Your task to perform on an android device: Go to CNN.com Image 0: 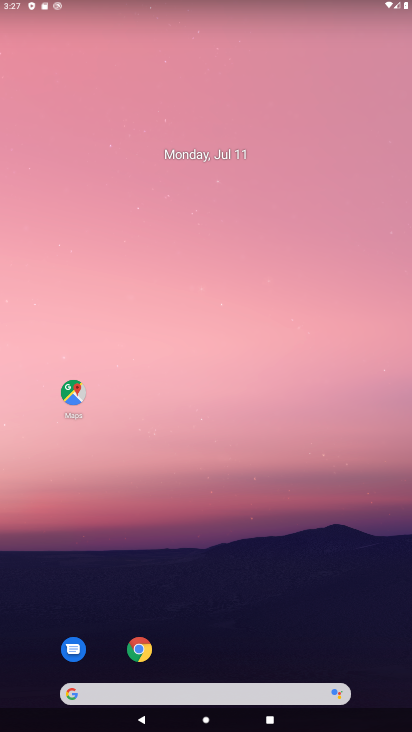
Step 0: drag from (202, 228) to (186, 342)
Your task to perform on an android device: Go to CNN.com Image 1: 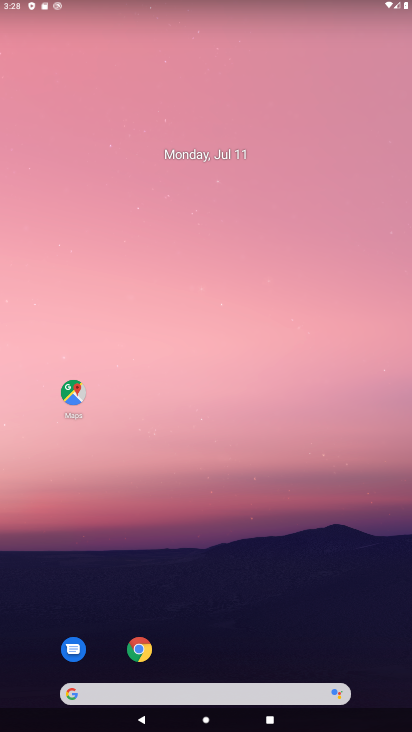
Step 1: drag from (172, 645) to (229, 295)
Your task to perform on an android device: Go to CNN.com Image 2: 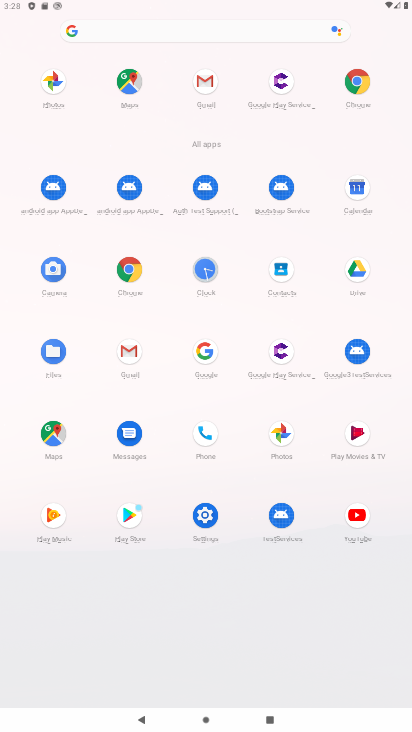
Step 2: click (128, 269)
Your task to perform on an android device: Go to CNN.com Image 3: 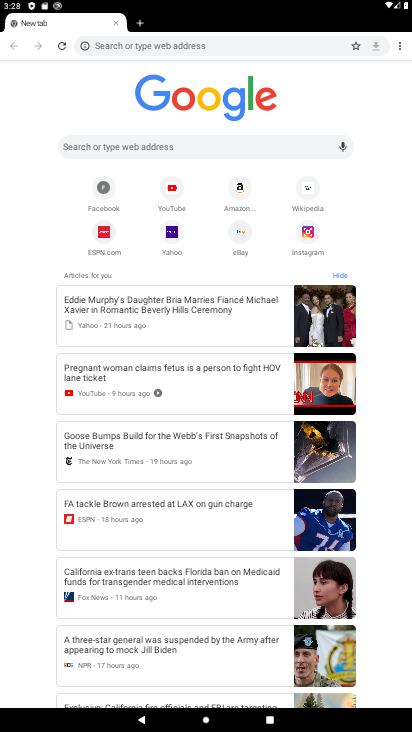
Step 3: click (166, 150)
Your task to perform on an android device: Go to CNN.com Image 4: 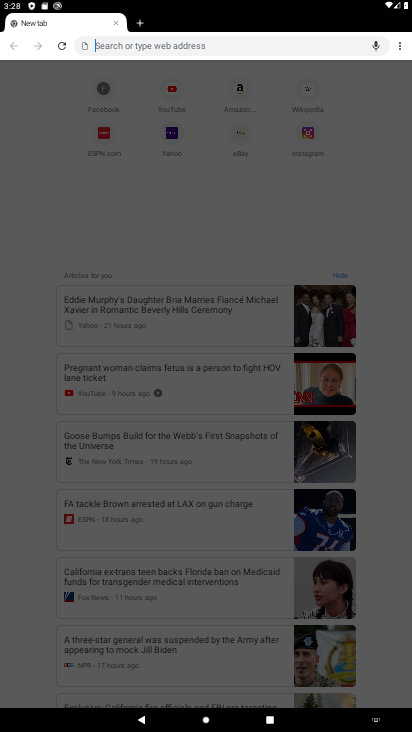
Step 4: type "cnn.com"
Your task to perform on an android device: Go to CNN.com Image 5: 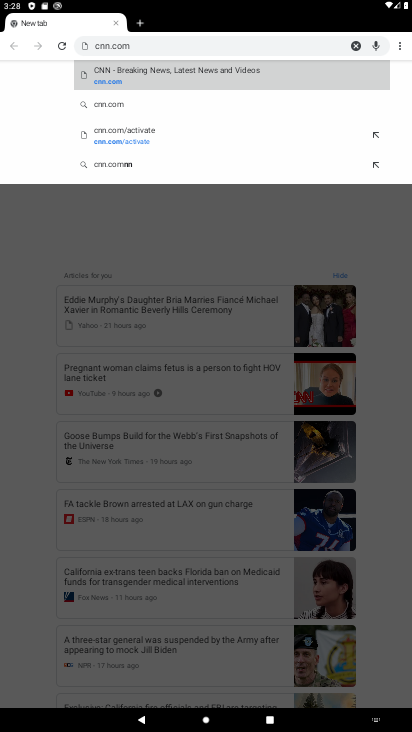
Step 5: drag from (92, 523) to (200, 175)
Your task to perform on an android device: Go to CNN.com Image 6: 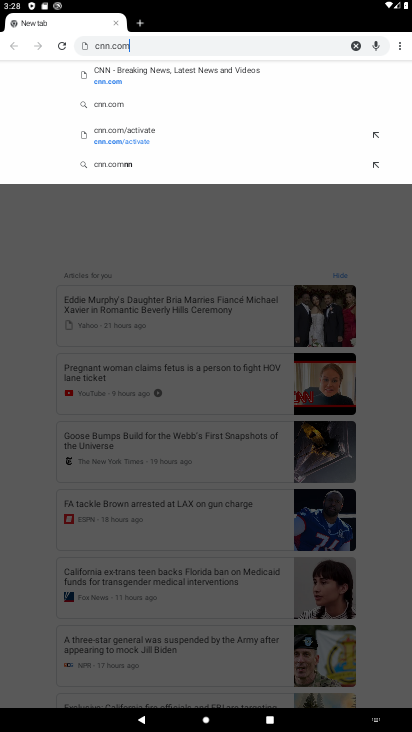
Step 6: click (129, 64)
Your task to perform on an android device: Go to CNN.com Image 7: 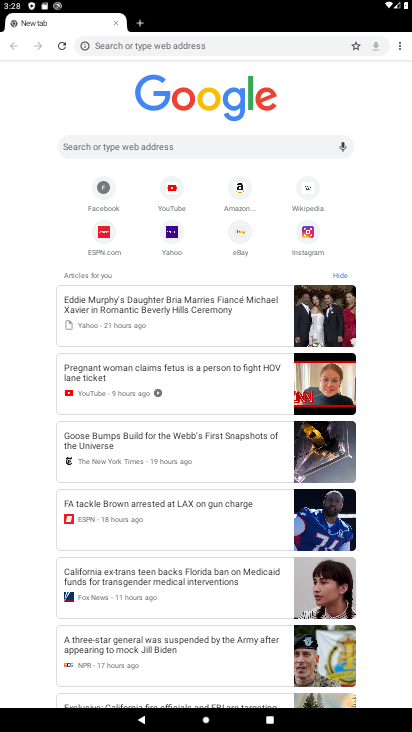
Step 7: click (111, 70)
Your task to perform on an android device: Go to CNN.com Image 8: 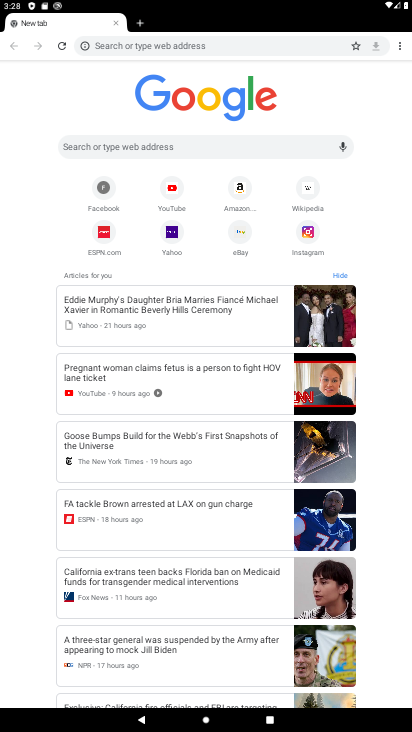
Step 8: click (191, 45)
Your task to perform on an android device: Go to CNN.com Image 9: 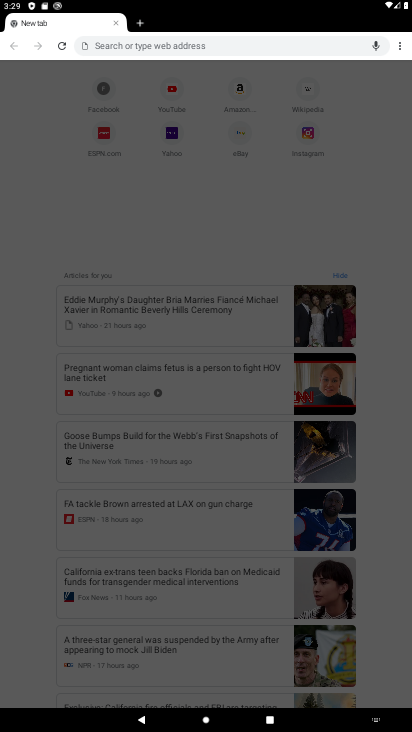
Step 9: type "cnn.com"
Your task to perform on an android device: Go to CNN.com Image 10: 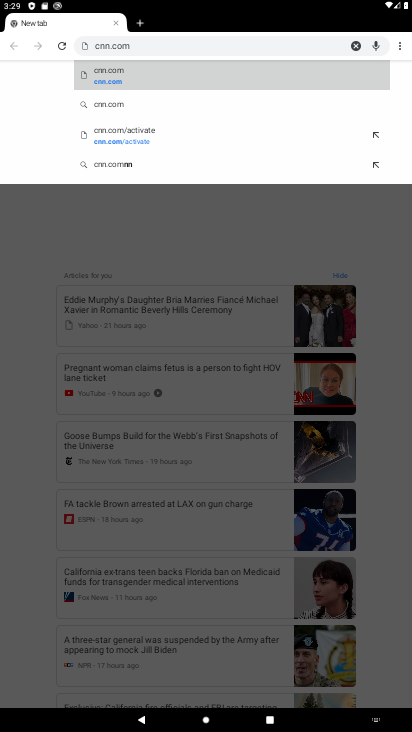
Step 10: click (108, 77)
Your task to perform on an android device: Go to CNN.com Image 11: 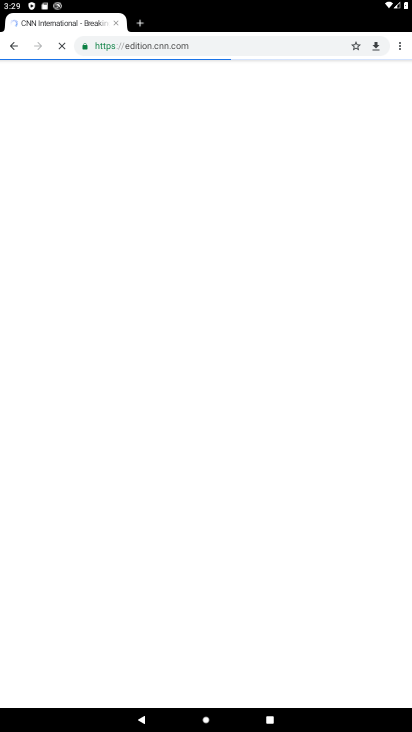
Step 11: task complete